Your task to perform on an android device: Go to eBay Image 0: 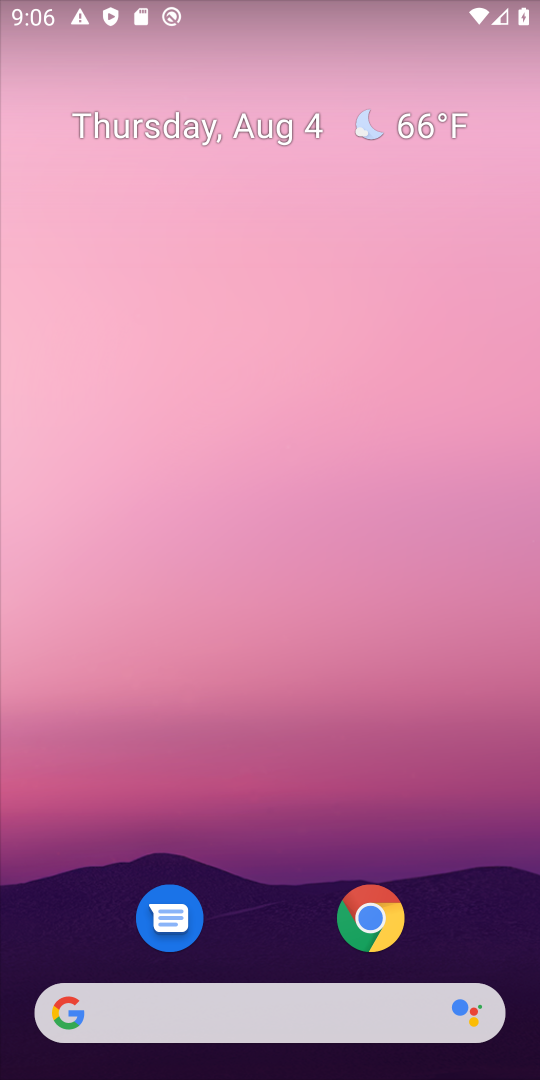
Step 0: press home button
Your task to perform on an android device: Go to eBay Image 1: 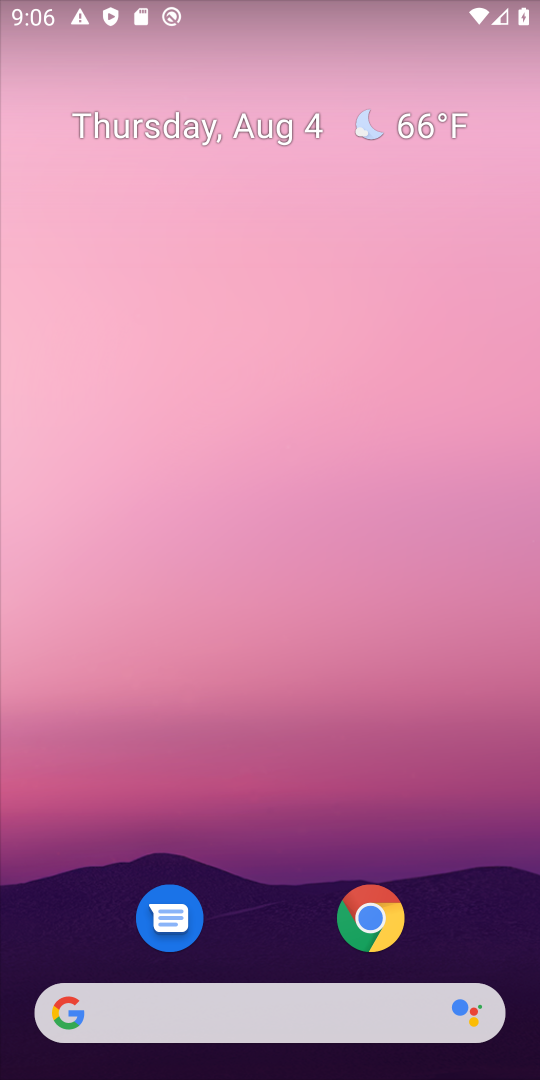
Step 1: click (382, 913)
Your task to perform on an android device: Go to eBay Image 2: 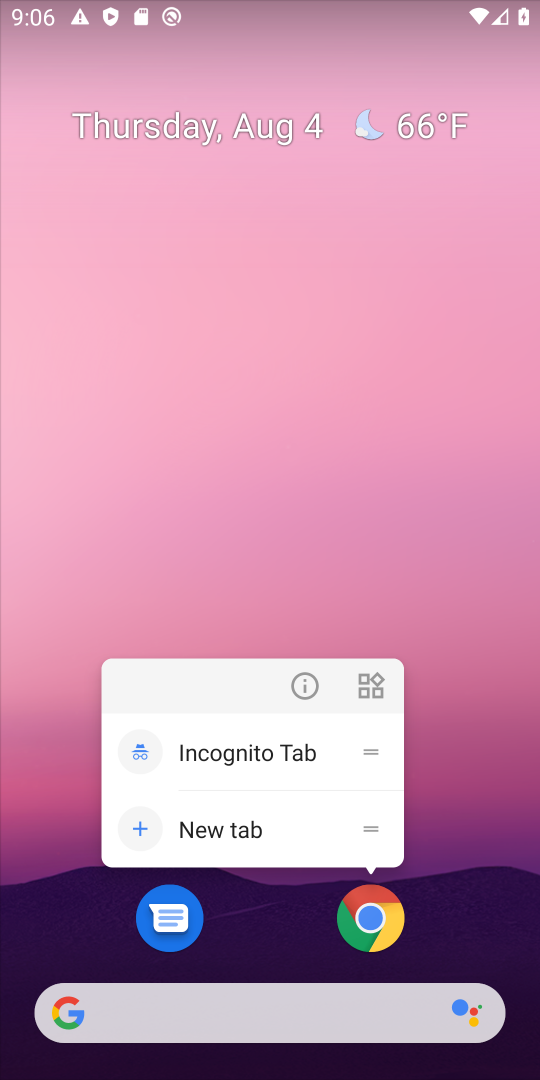
Step 2: click (371, 913)
Your task to perform on an android device: Go to eBay Image 3: 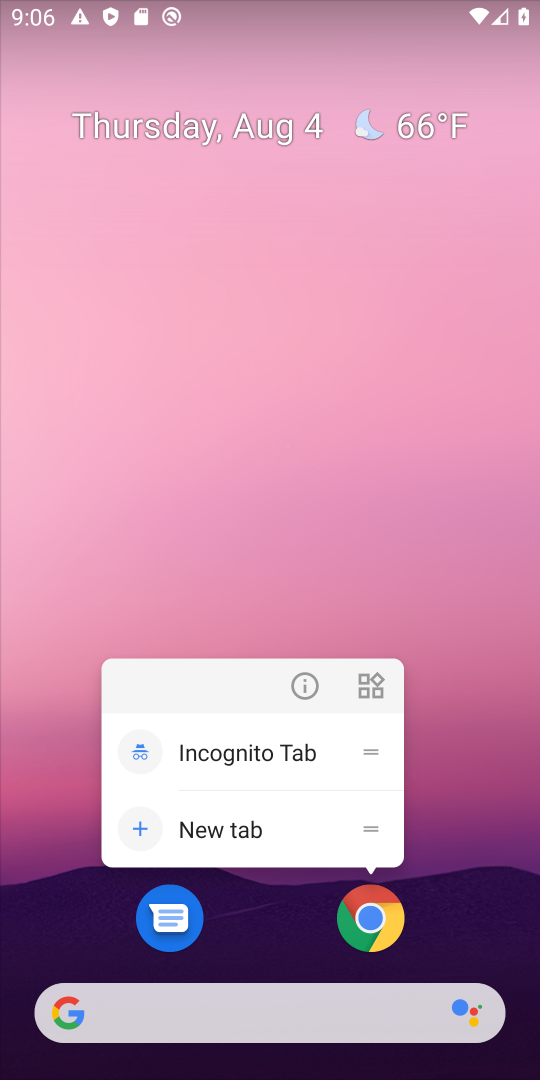
Step 3: drag from (444, 914) to (421, 100)
Your task to perform on an android device: Go to eBay Image 4: 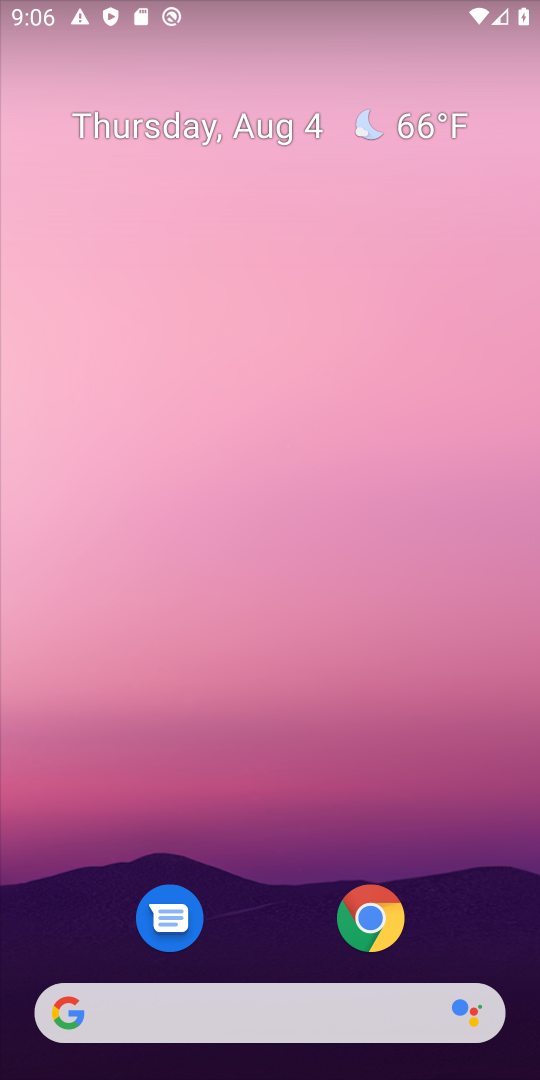
Step 4: drag from (440, 935) to (442, 100)
Your task to perform on an android device: Go to eBay Image 5: 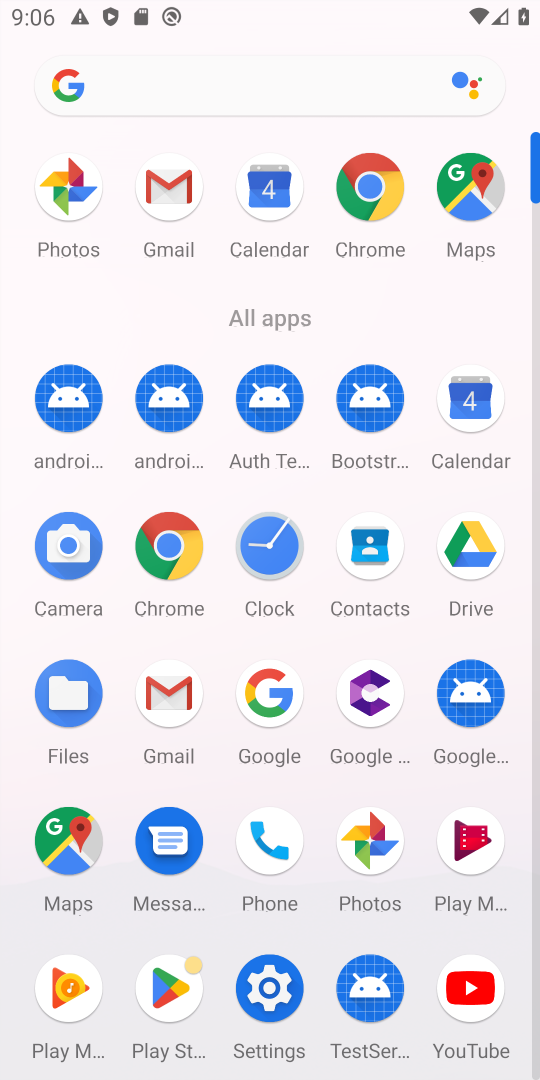
Step 5: click (161, 536)
Your task to perform on an android device: Go to eBay Image 6: 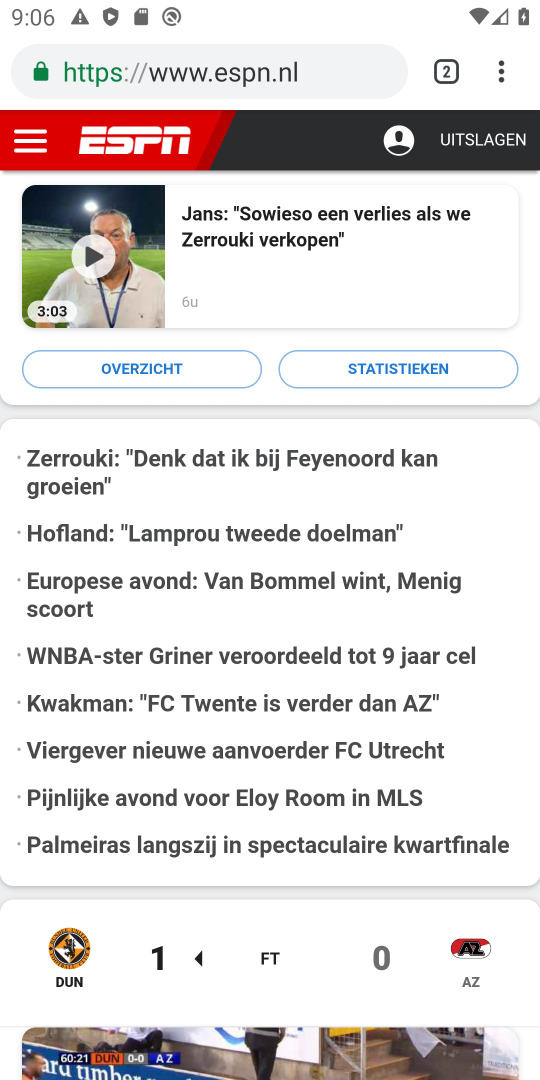
Step 6: click (458, 68)
Your task to perform on an android device: Go to eBay Image 7: 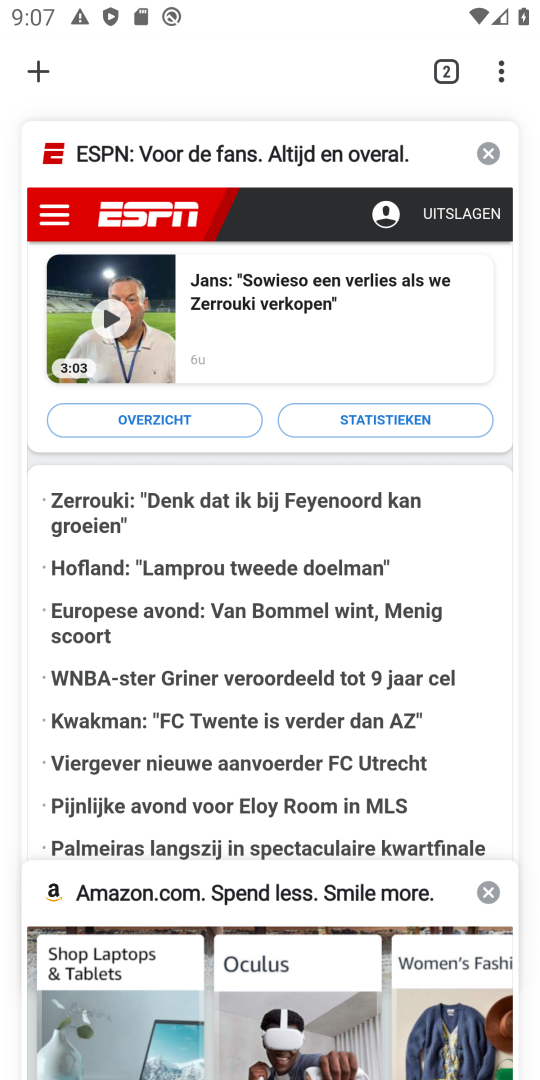
Step 7: click (38, 67)
Your task to perform on an android device: Go to eBay Image 8: 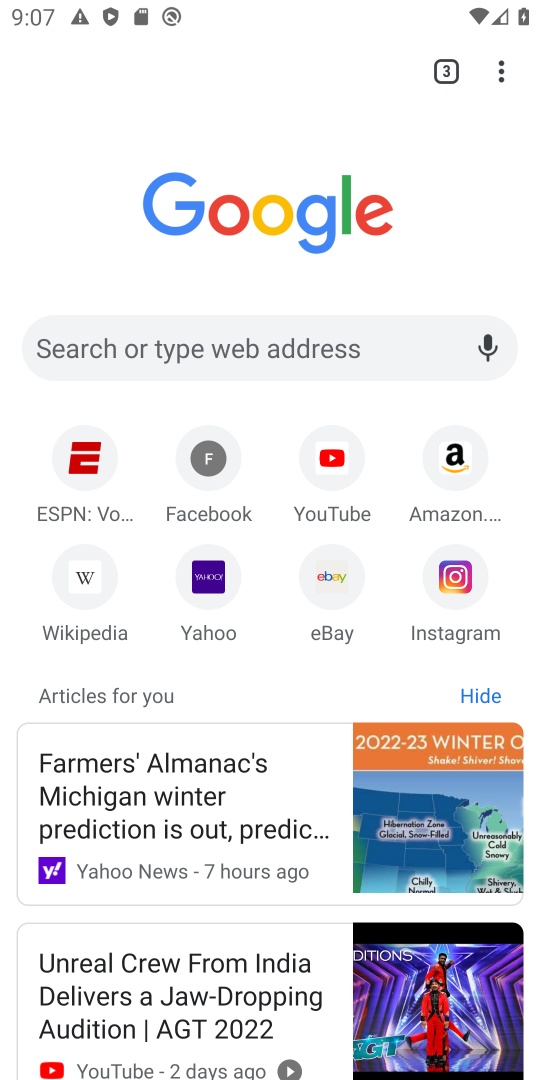
Step 8: click (317, 568)
Your task to perform on an android device: Go to eBay Image 9: 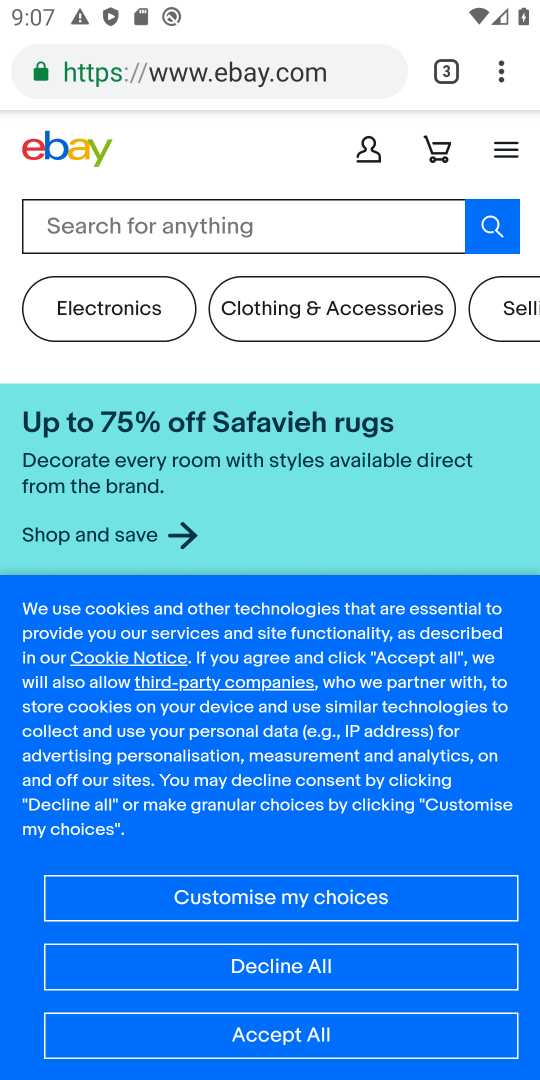
Step 9: click (283, 1021)
Your task to perform on an android device: Go to eBay Image 10: 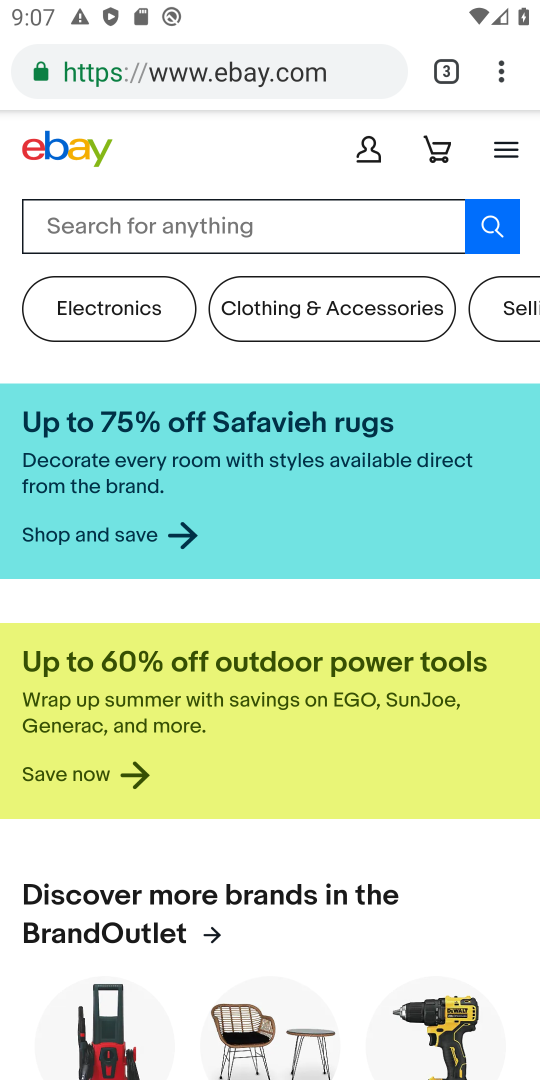
Step 10: task complete